Your task to perform on an android device: change the clock display to show seconds Image 0: 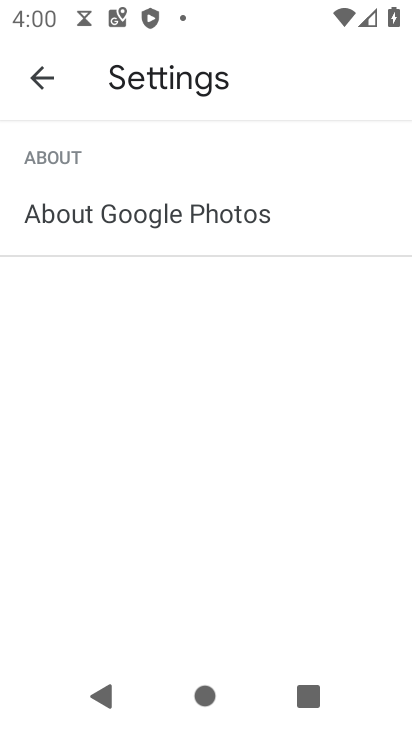
Step 0: press back button
Your task to perform on an android device: change the clock display to show seconds Image 1: 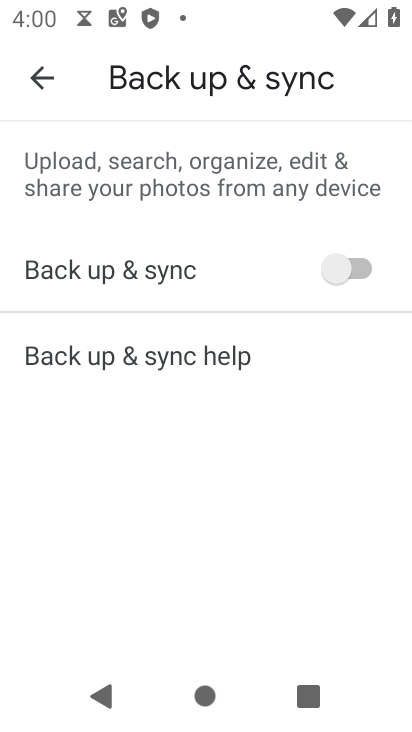
Step 1: press back button
Your task to perform on an android device: change the clock display to show seconds Image 2: 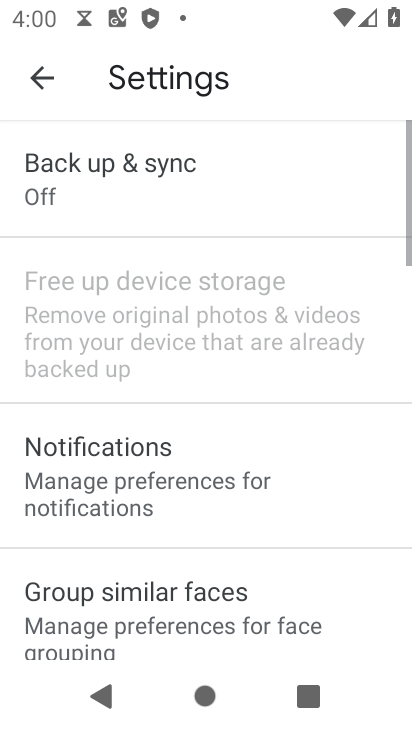
Step 2: press back button
Your task to perform on an android device: change the clock display to show seconds Image 3: 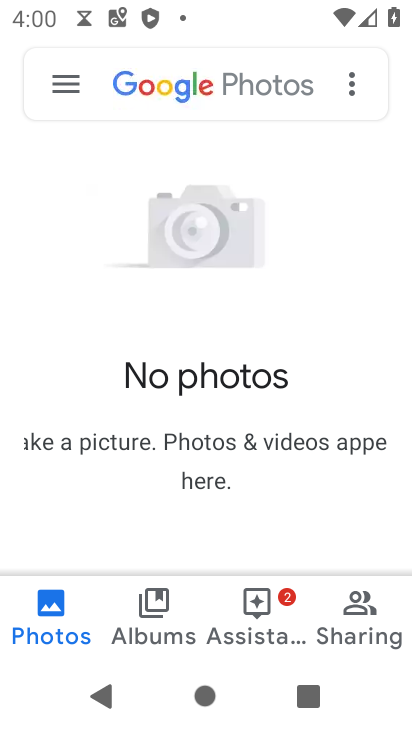
Step 3: press back button
Your task to perform on an android device: change the clock display to show seconds Image 4: 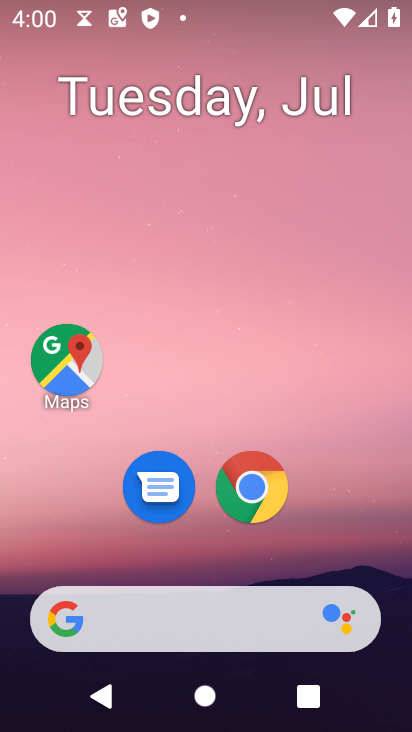
Step 4: drag from (165, 559) to (208, 116)
Your task to perform on an android device: change the clock display to show seconds Image 5: 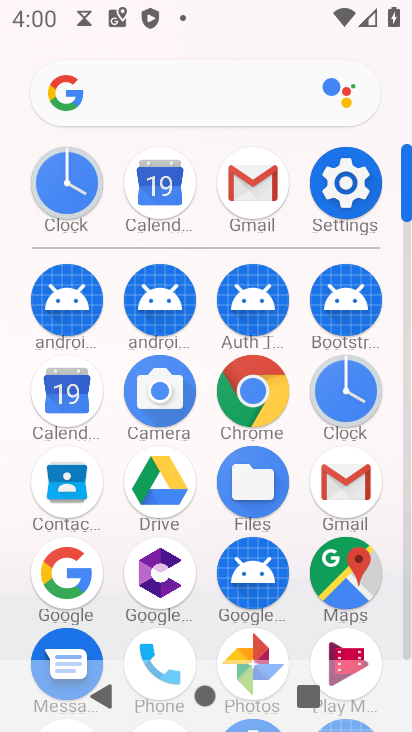
Step 5: click (335, 387)
Your task to perform on an android device: change the clock display to show seconds Image 6: 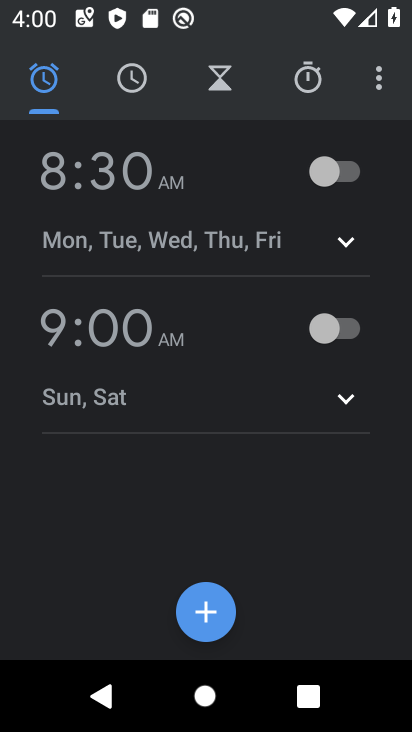
Step 6: click (374, 72)
Your task to perform on an android device: change the clock display to show seconds Image 7: 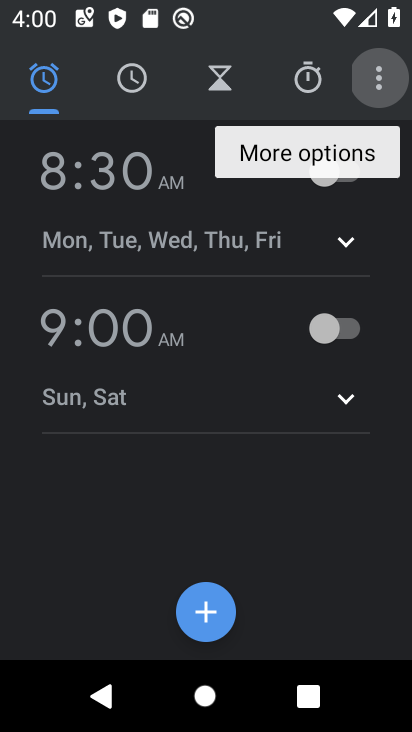
Step 7: click (375, 72)
Your task to perform on an android device: change the clock display to show seconds Image 8: 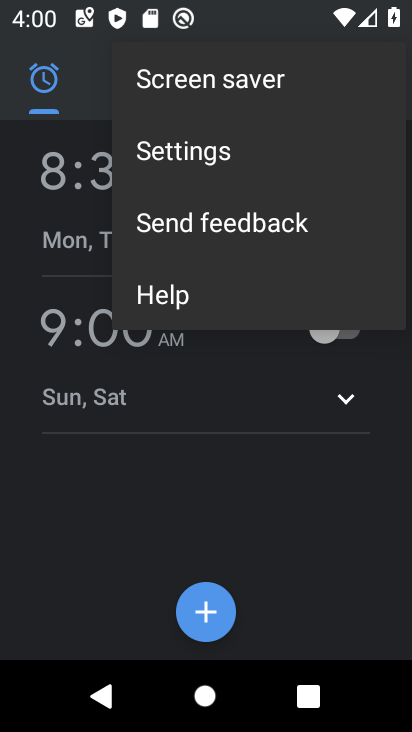
Step 8: click (143, 144)
Your task to perform on an android device: change the clock display to show seconds Image 9: 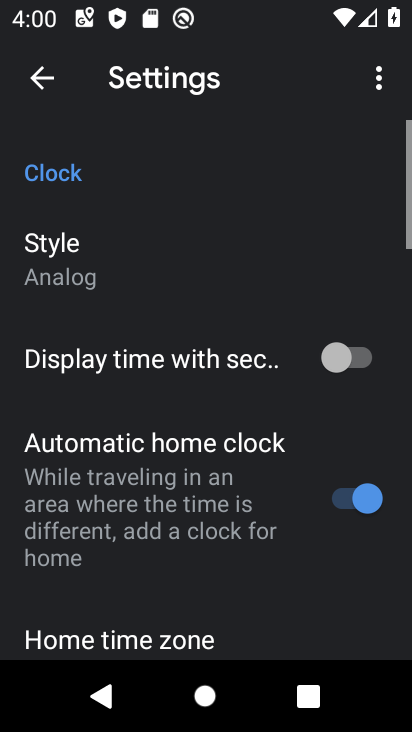
Step 9: click (115, 209)
Your task to perform on an android device: change the clock display to show seconds Image 10: 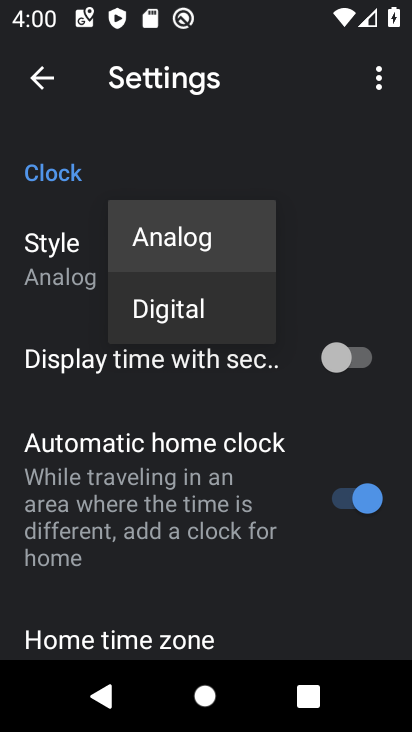
Step 10: click (167, 297)
Your task to perform on an android device: change the clock display to show seconds Image 11: 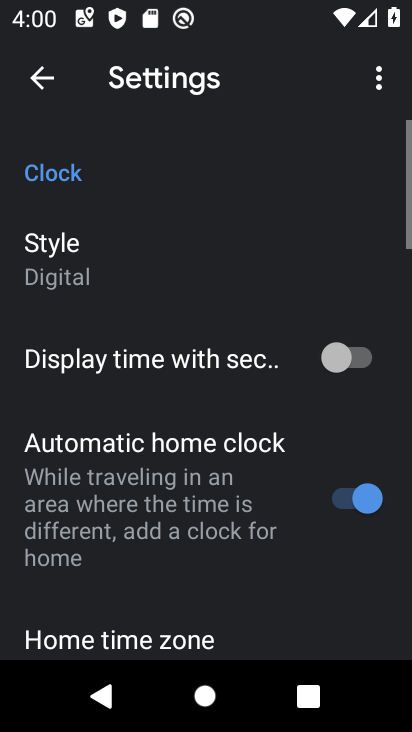
Step 11: click (334, 358)
Your task to perform on an android device: change the clock display to show seconds Image 12: 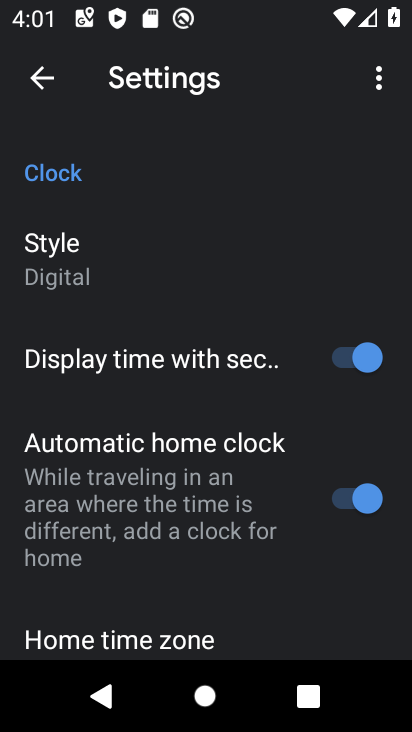
Step 12: task complete